Your task to perform on an android device: Open Maps and search for coffee Image 0: 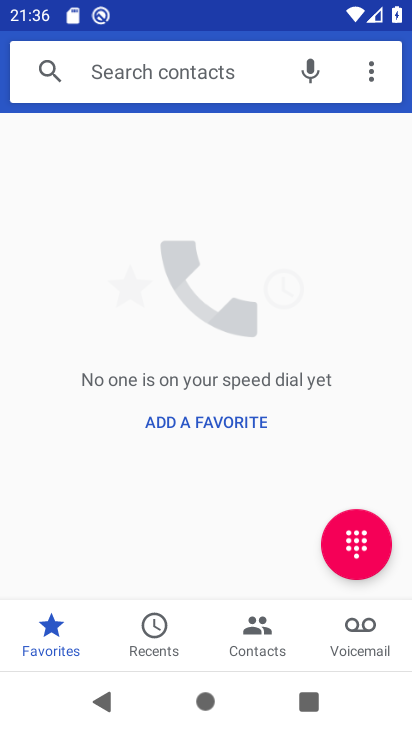
Step 0: press home button
Your task to perform on an android device: Open Maps and search for coffee Image 1: 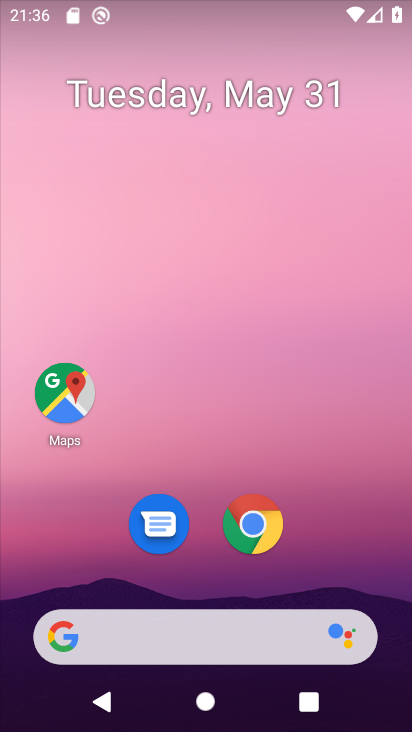
Step 1: click (72, 392)
Your task to perform on an android device: Open Maps and search for coffee Image 2: 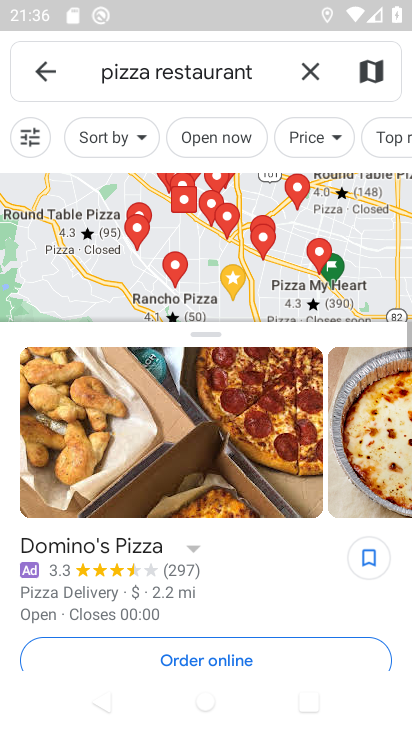
Step 2: click (311, 60)
Your task to perform on an android device: Open Maps and search for coffee Image 3: 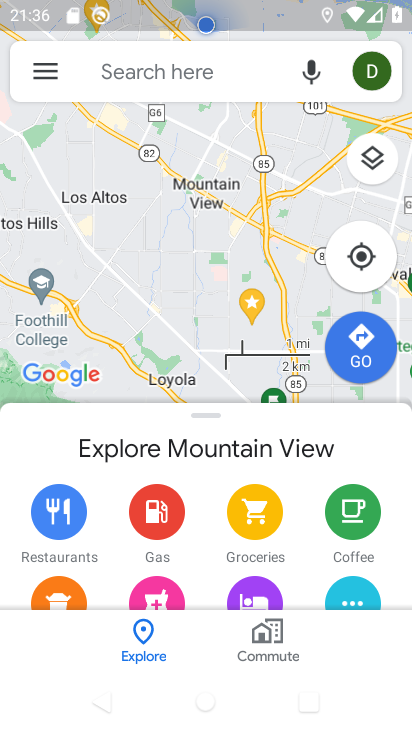
Step 3: click (187, 64)
Your task to perform on an android device: Open Maps and search for coffee Image 4: 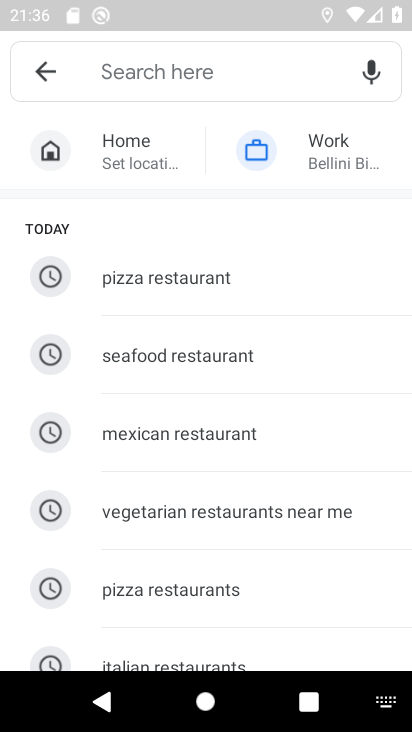
Step 4: type "coffee"
Your task to perform on an android device: Open Maps and search for coffee Image 5: 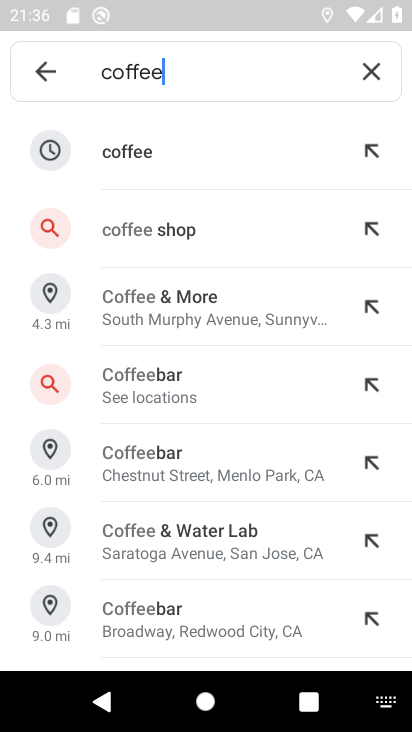
Step 5: click (191, 230)
Your task to perform on an android device: Open Maps and search for coffee Image 6: 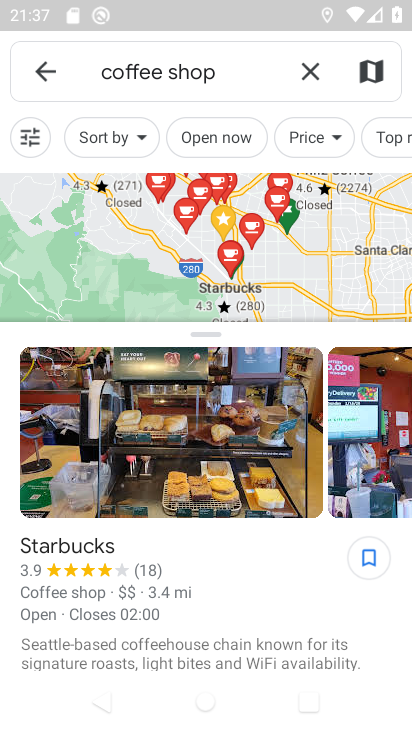
Step 6: task complete